Your task to perform on an android device: Open Google Chrome and click the shortcut for Amazon.com Image 0: 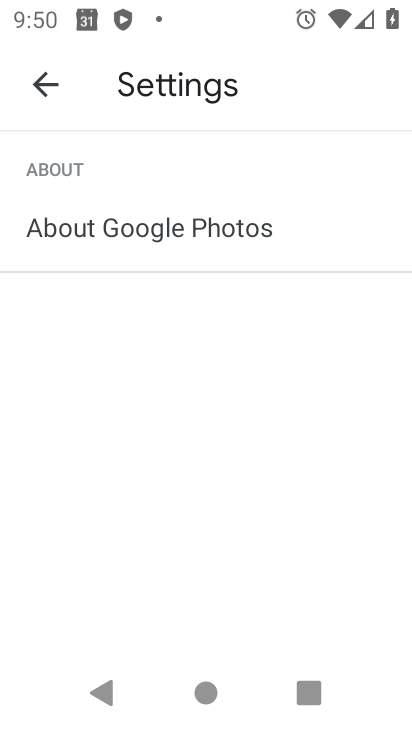
Step 0: press home button
Your task to perform on an android device: Open Google Chrome and click the shortcut for Amazon.com Image 1: 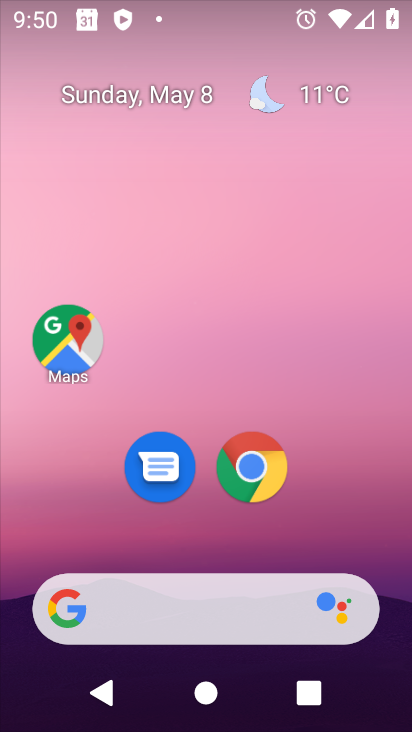
Step 1: click (240, 460)
Your task to perform on an android device: Open Google Chrome and click the shortcut for Amazon.com Image 2: 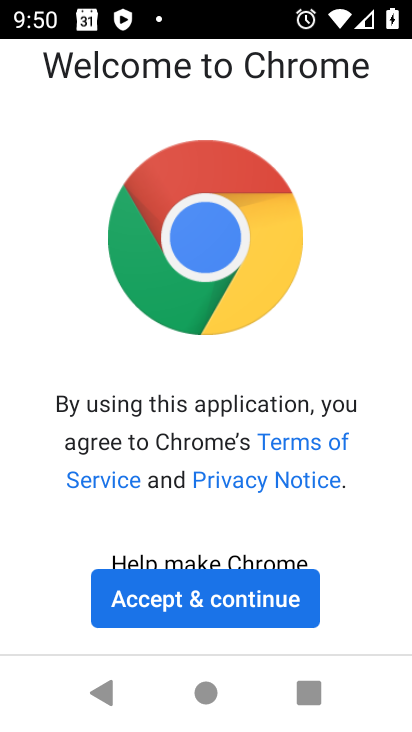
Step 2: click (208, 592)
Your task to perform on an android device: Open Google Chrome and click the shortcut for Amazon.com Image 3: 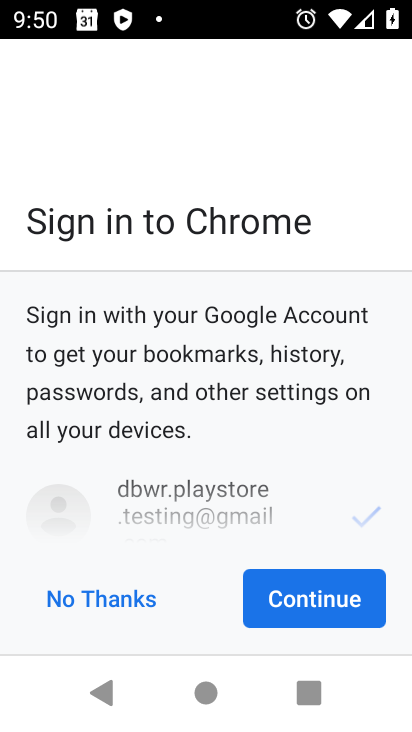
Step 3: click (102, 596)
Your task to perform on an android device: Open Google Chrome and click the shortcut for Amazon.com Image 4: 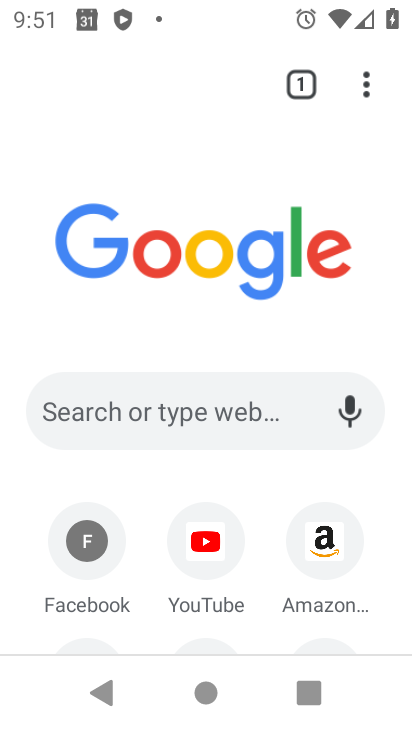
Step 4: click (303, 534)
Your task to perform on an android device: Open Google Chrome and click the shortcut for Amazon.com Image 5: 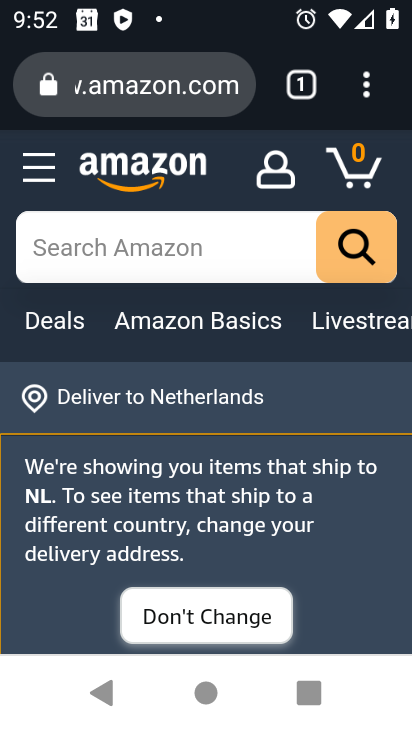
Step 5: task complete